Your task to perform on an android device: allow cookies in the chrome app Image 0: 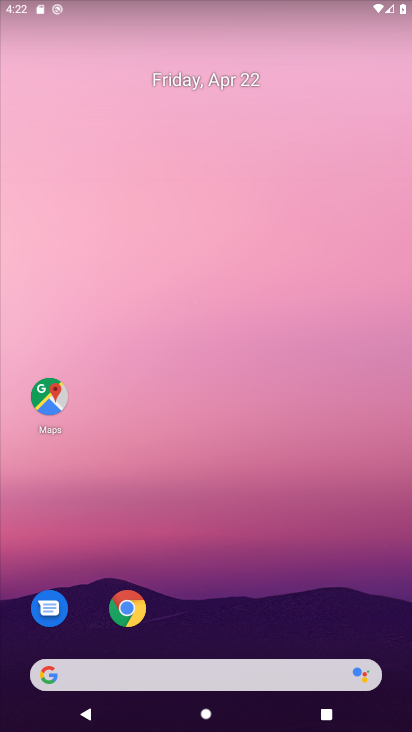
Step 0: click (227, 673)
Your task to perform on an android device: allow cookies in the chrome app Image 1: 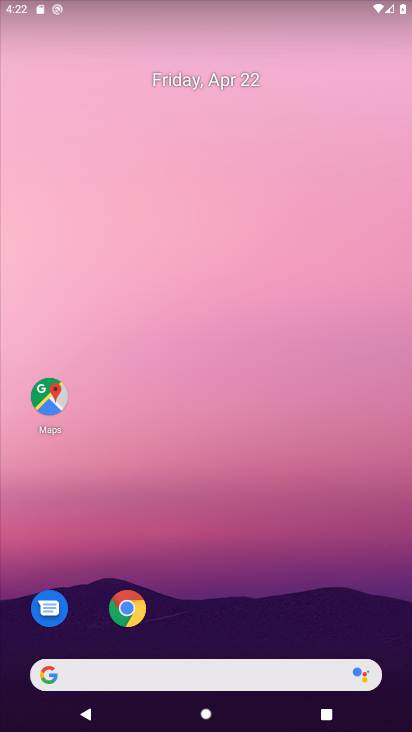
Step 1: drag from (261, 305) to (283, 184)
Your task to perform on an android device: allow cookies in the chrome app Image 2: 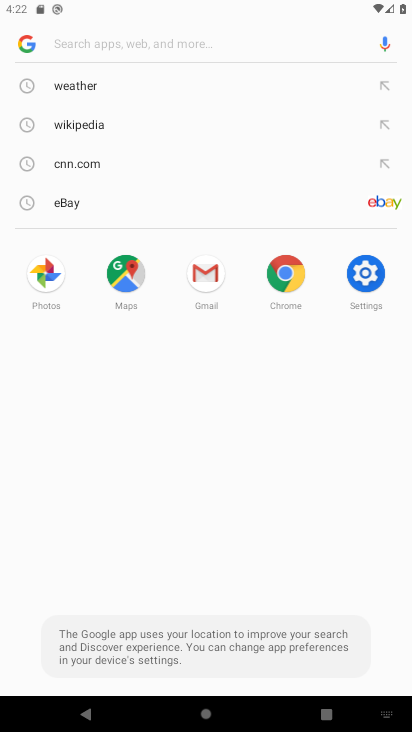
Step 2: press home button
Your task to perform on an android device: allow cookies in the chrome app Image 3: 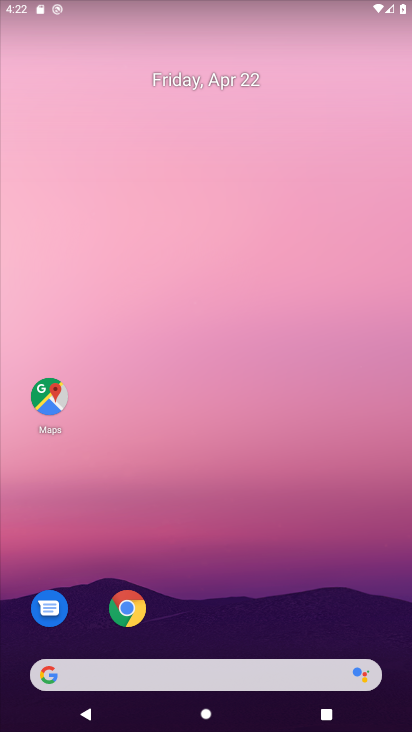
Step 3: click (130, 616)
Your task to perform on an android device: allow cookies in the chrome app Image 4: 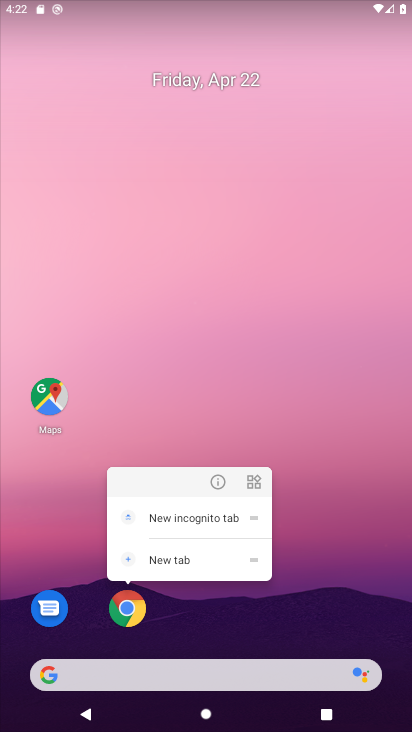
Step 4: click (133, 621)
Your task to perform on an android device: allow cookies in the chrome app Image 5: 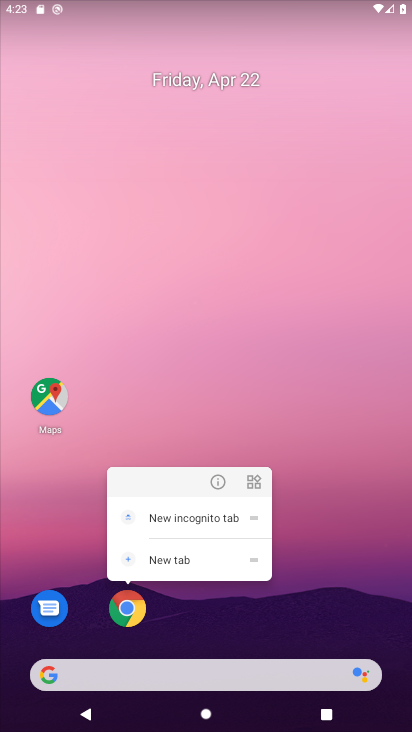
Step 5: click (136, 619)
Your task to perform on an android device: allow cookies in the chrome app Image 6: 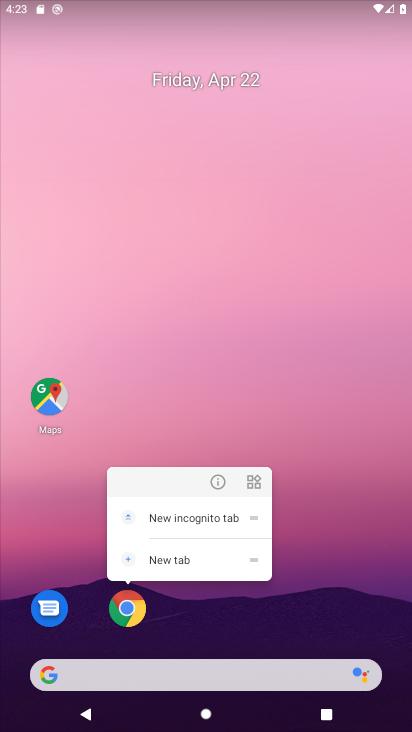
Step 6: click (129, 632)
Your task to perform on an android device: allow cookies in the chrome app Image 7: 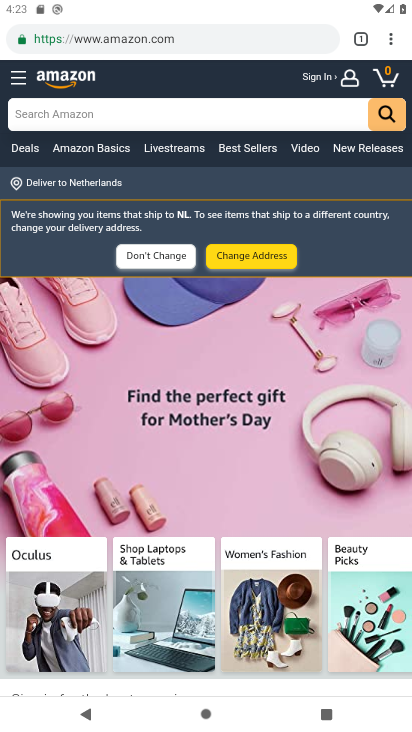
Step 7: click (390, 40)
Your task to perform on an android device: allow cookies in the chrome app Image 8: 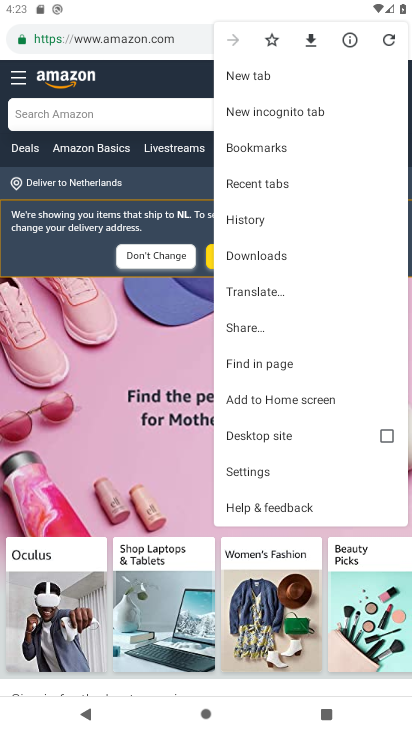
Step 8: click (257, 469)
Your task to perform on an android device: allow cookies in the chrome app Image 9: 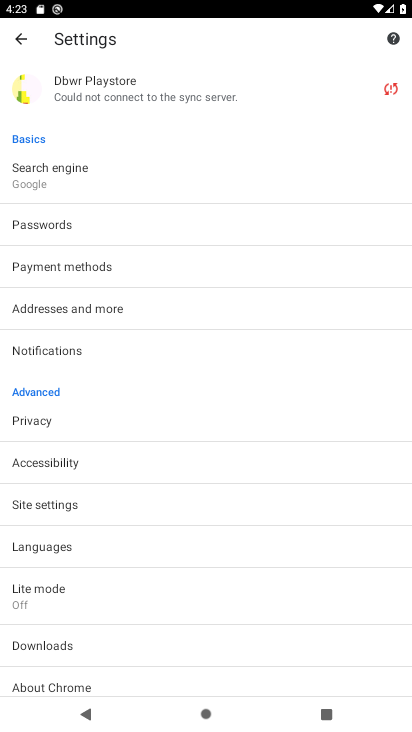
Step 9: click (114, 513)
Your task to perform on an android device: allow cookies in the chrome app Image 10: 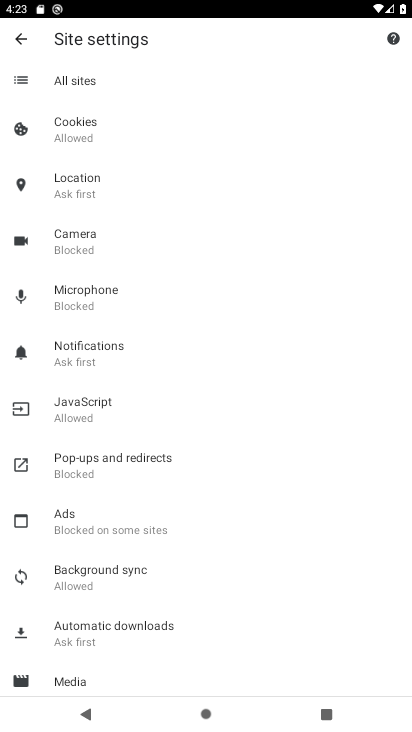
Step 10: click (138, 136)
Your task to perform on an android device: allow cookies in the chrome app Image 11: 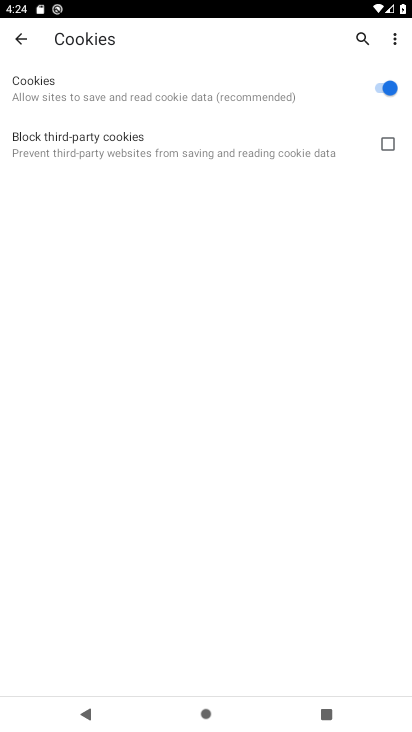
Step 11: task complete